Your task to perform on an android device: Open settings on Google Maps Image 0: 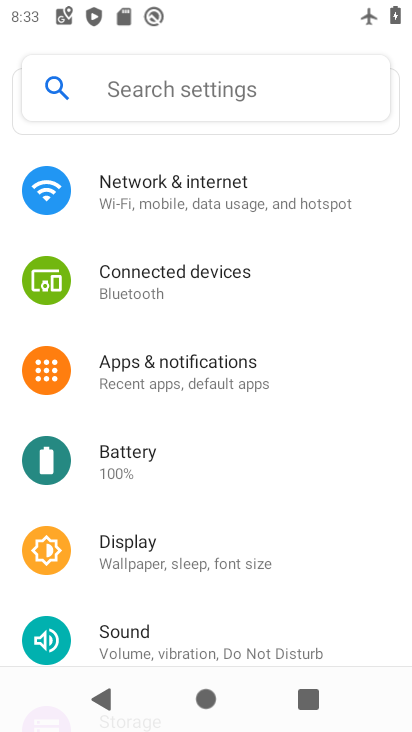
Step 0: press home button
Your task to perform on an android device: Open settings on Google Maps Image 1: 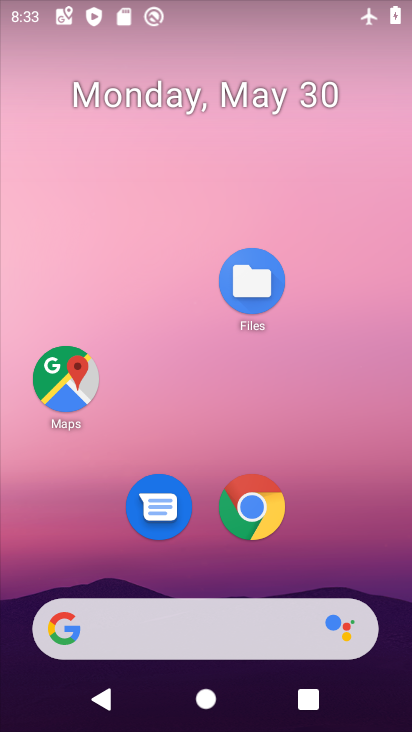
Step 1: click (74, 396)
Your task to perform on an android device: Open settings on Google Maps Image 2: 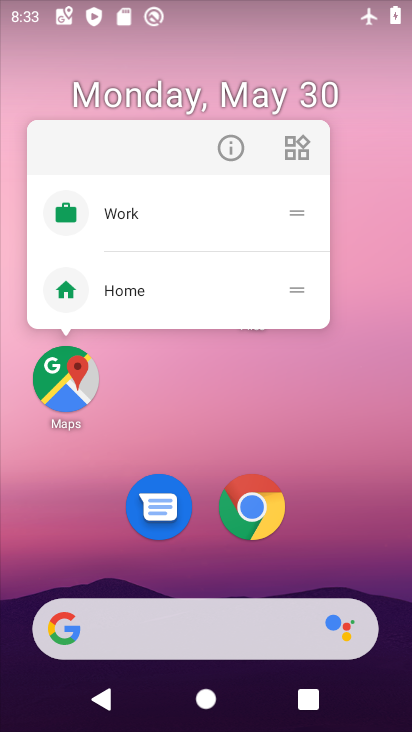
Step 2: click (74, 396)
Your task to perform on an android device: Open settings on Google Maps Image 3: 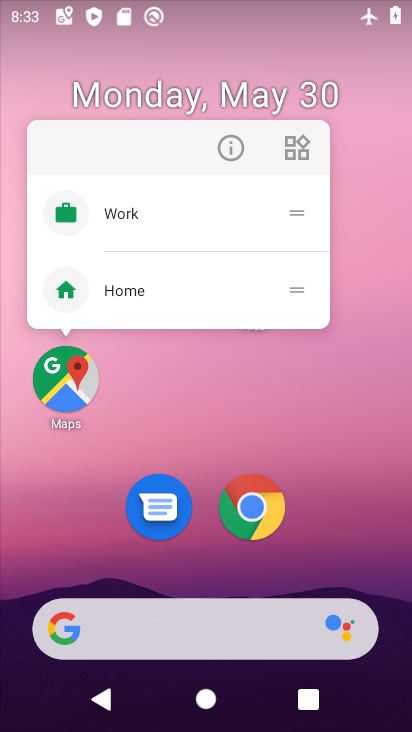
Step 3: click (74, 396)
Your task to perform on an android device: Open settings on Google Maps Image 4: 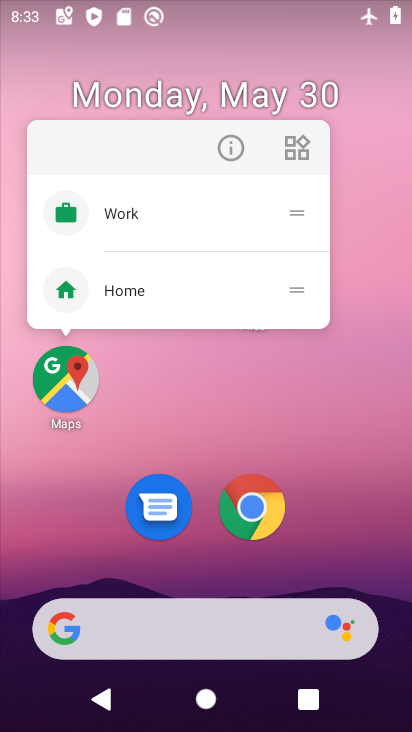
Step 4: click (74, 396)
Your task to perform on an android device: Open settings on Google Maps Image 5: 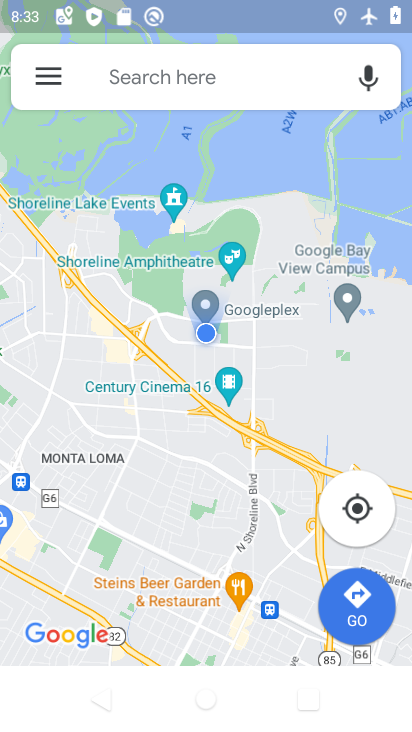
Step 5: click (38, 74)
Your task to perform on an android device: Open settings on Google Maps Image 6: 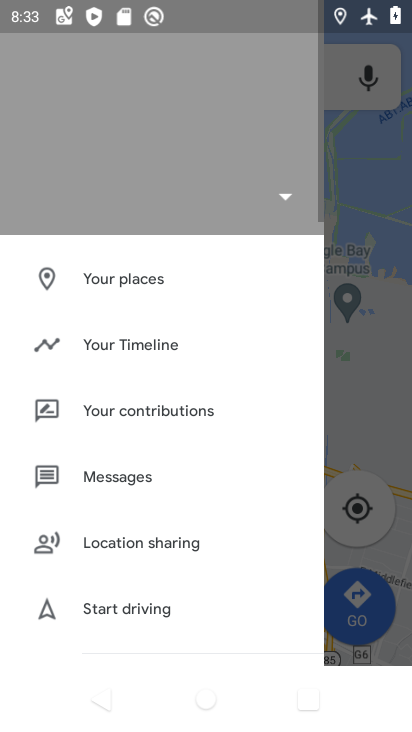
Step 6: drag from (178, 515) to (230, 19)
Your task to perform on an android device: Open settings on Google Maps Image 7: 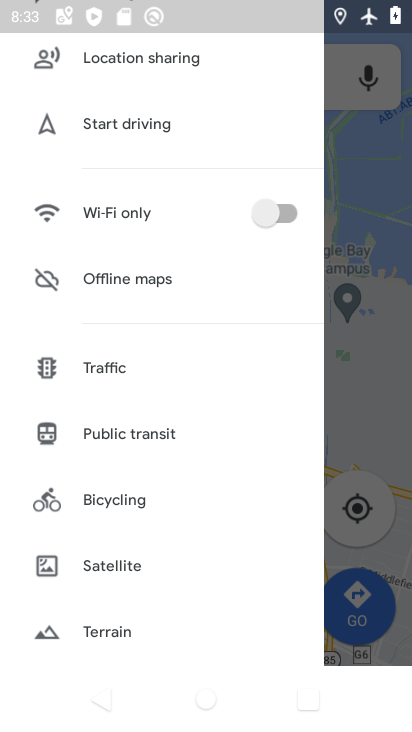
Step 7: drag from (130, 567) to (231, 0)
Your task to perform on an android device: Open settings on Google Maps Image 8: 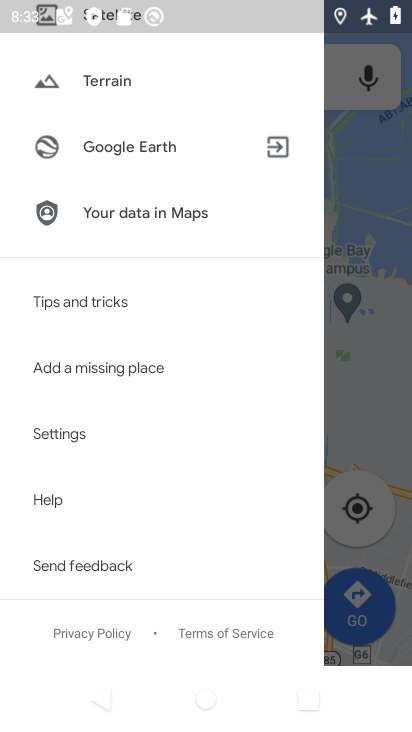
Step 8: click (78, 440)
Your task to perform on an android device: Open settings on Google Maps Image 9: 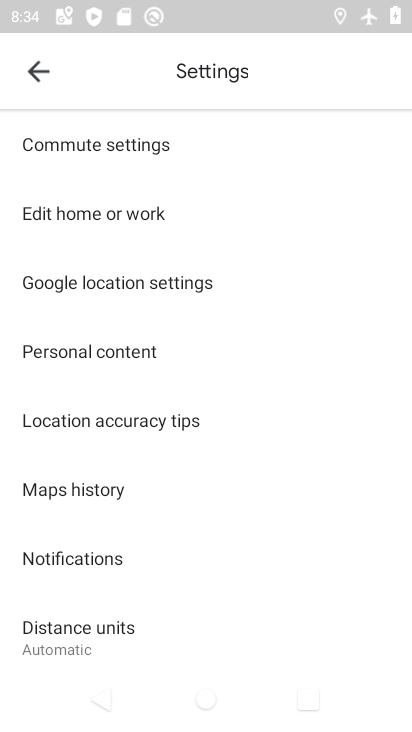
Step 9: task complete